Your task to perform on an android device: open a new tab in the chrome app Image 0: 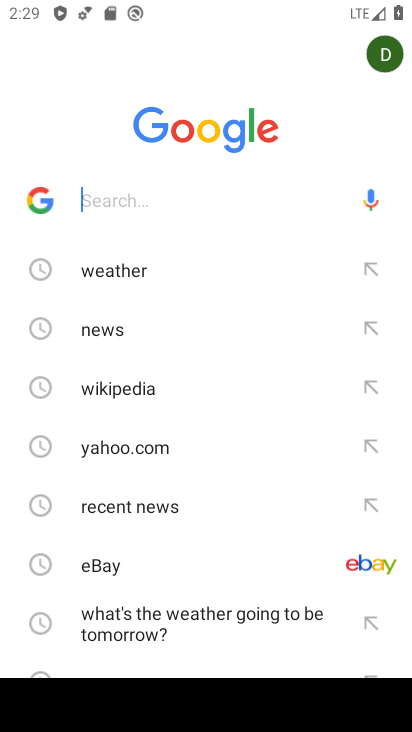
Step 0: press home button
Your task to perform on an android device: open a new tab in the chrome app Image 1: 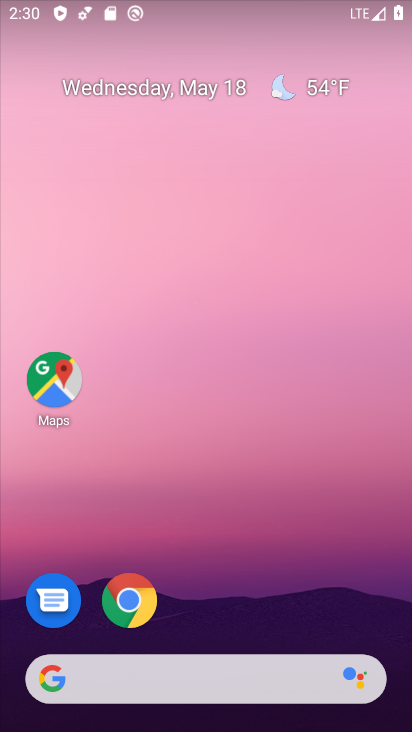
Step 1: click (135, 613)
Your task to perform on an android device: open a new tab in the chrome app Image 2: 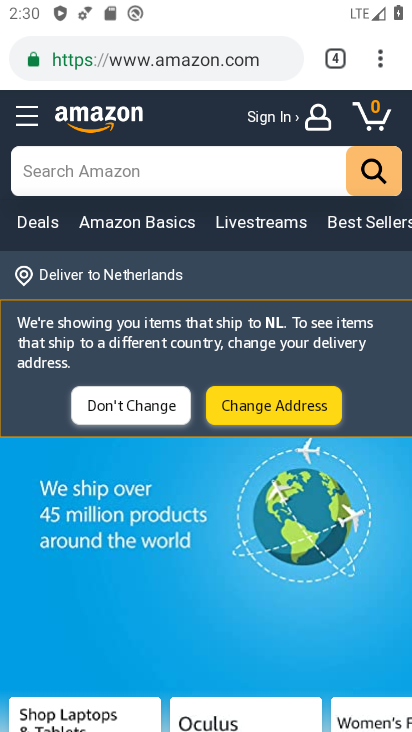
Step 2: task complete